Your task to perform on an android device: Go to privacy settings Image 0: 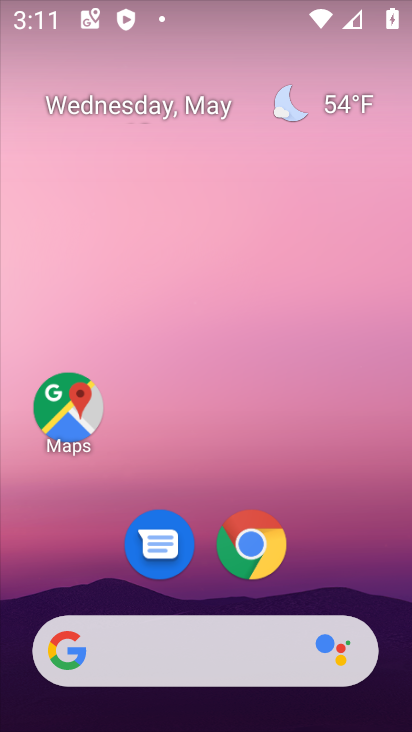
Step 0: drag from (371, 566) to (337, 78)
Your task to perform on an android device: Go to privacy settings Image 1: 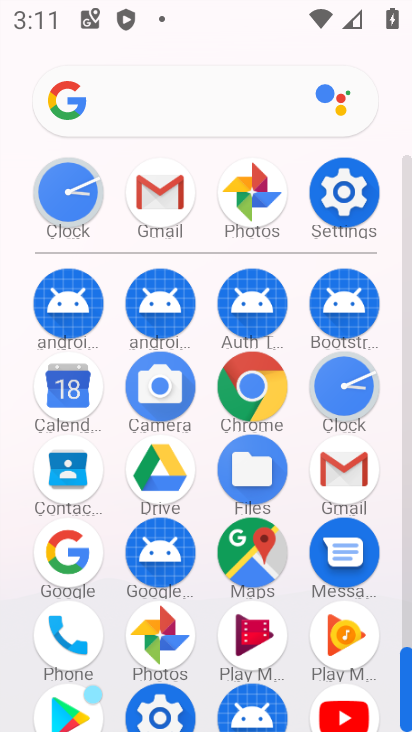
Step 1: click (337, 231)
Your task to perform on an android device: Go to privacy settings Image 2: 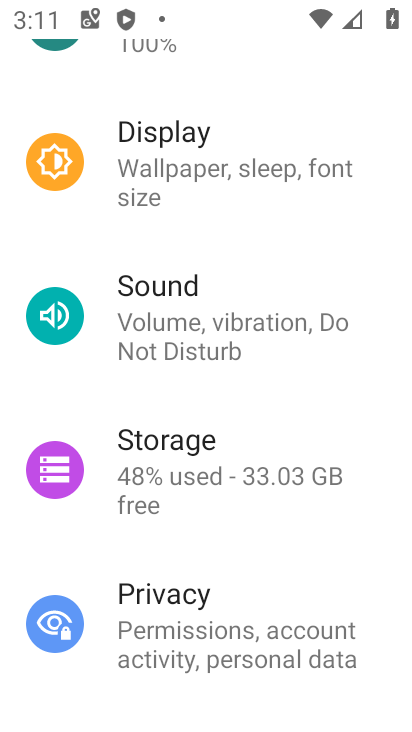
Step 2: click (212, 618)
Your task to perform on an android device: Go to privacy settings Image 3: 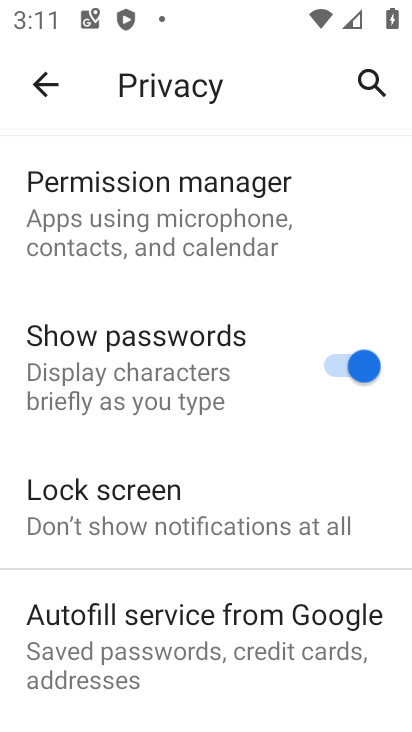
Step 3: press home button
Your task to perform on an android device: Go to privacy settings Image 4: 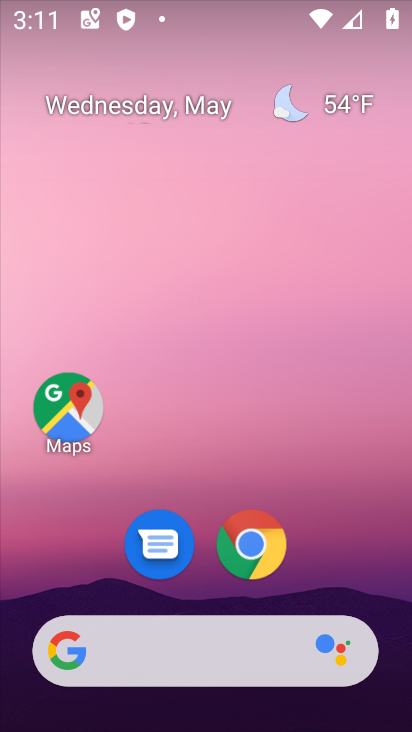
Step 4: drag from (340, 564) to (363, 123)
Your task to perform on an android device: Go to privacy settings Image 5: 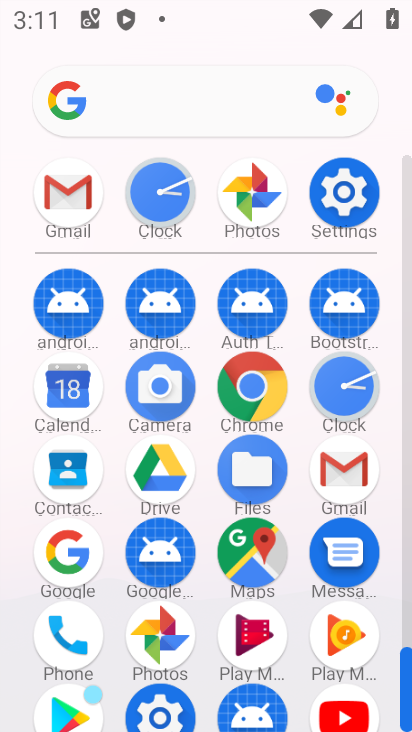
Step 5: click (336, 226)
Your task to perform on an android device: Go to privacy settings Image 6: 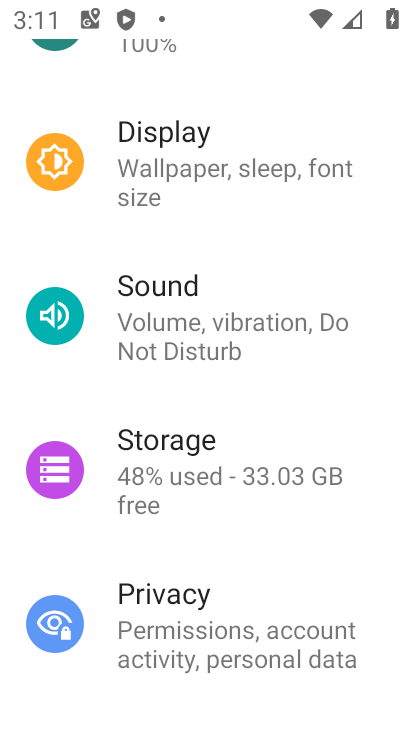
Step 6: click (287, 631)
Your task to perform on an android device: Go to privacy settings Image 7: 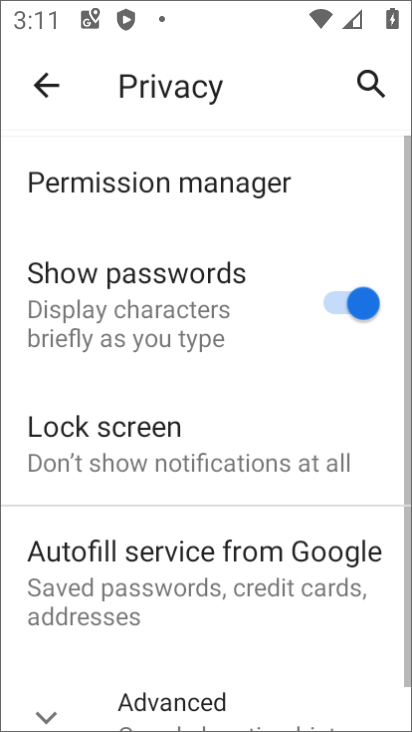
Step 7: task complete